Your task to perform on an android device: Open Amazon Image 0: 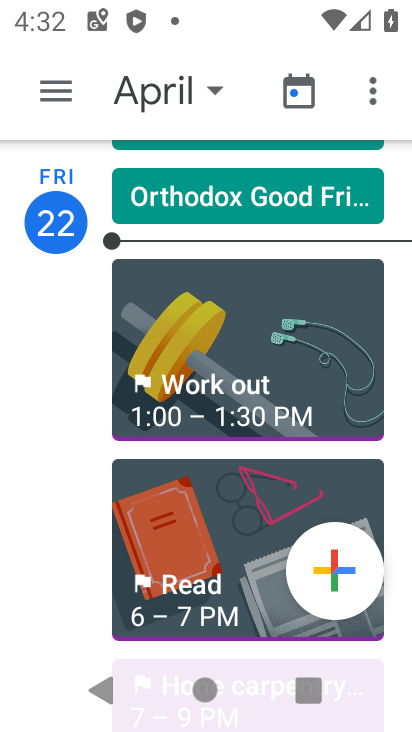
Step 0: press home button
Your task to perform on an android device: Open Amazon Image 1: 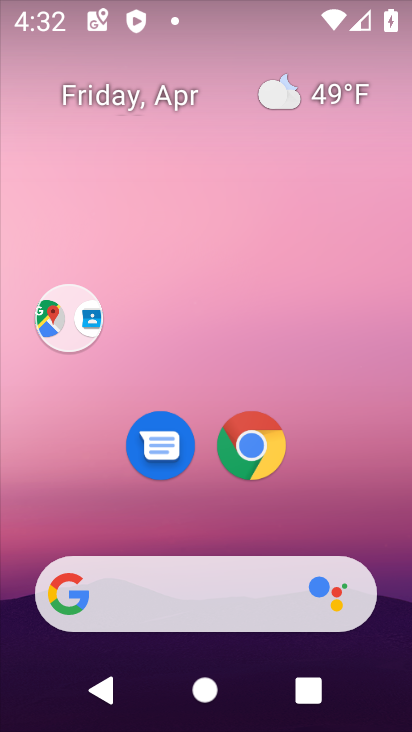
Step 1: drag from (321, 471) to (292, 75)
Your task to perform on an android device: Open Amazon Image 2: 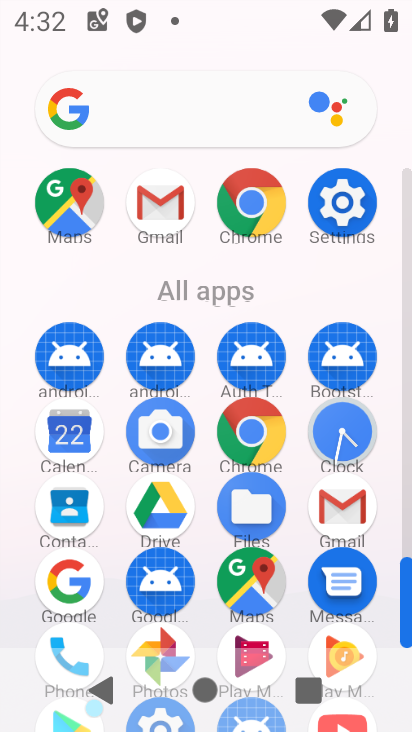
Step 2: click (251, 435)
Your task to perform on an android device: Open Amazon Image 3: 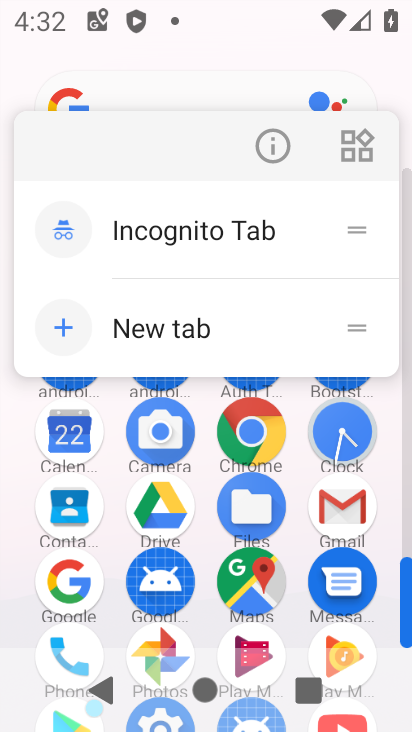
Step 3: click (251, 430)
Your task to perform on an android device: Open Amazon Image 4: 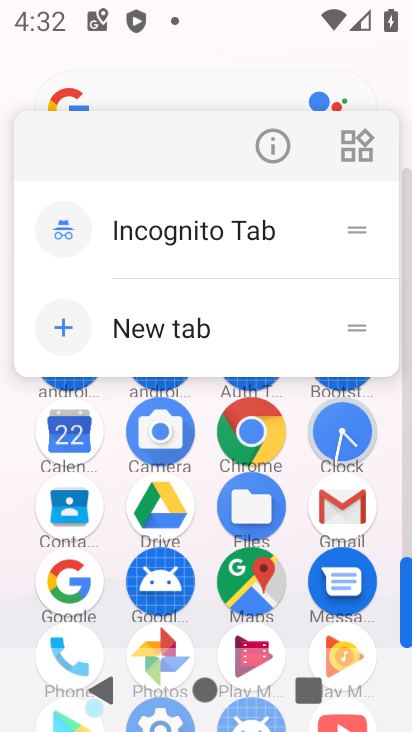
Step 4: click (267, 431)
Your task to perform on an android device: Open Amazon Image 5: 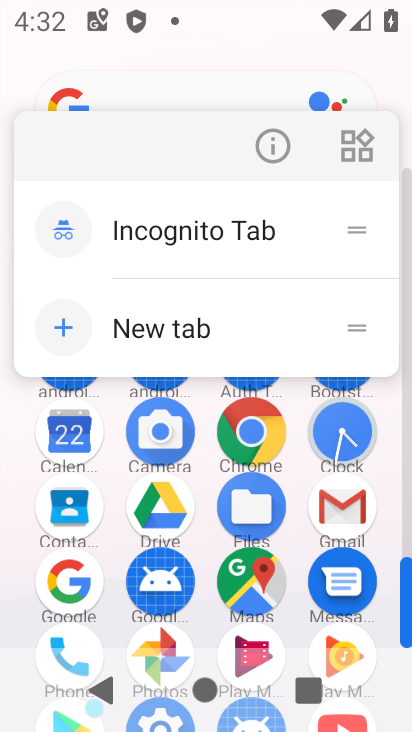
Step 5: click (256, 431)
Your task to perform on an android device: Open Amazon Image 6: 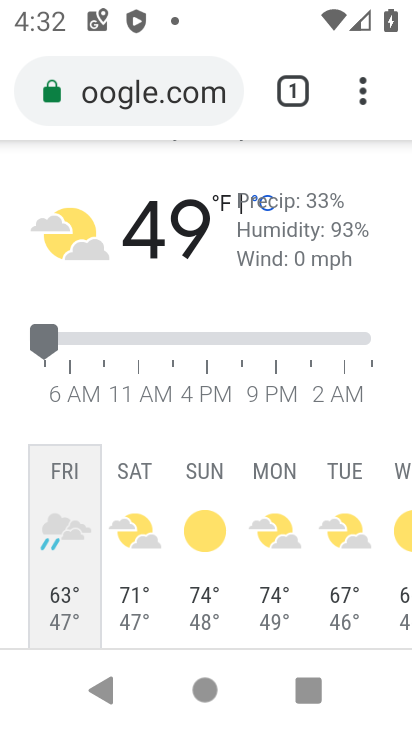
Step 6: click (157, 91)
Your task to perform on an android device: Open Amazon Image 7: 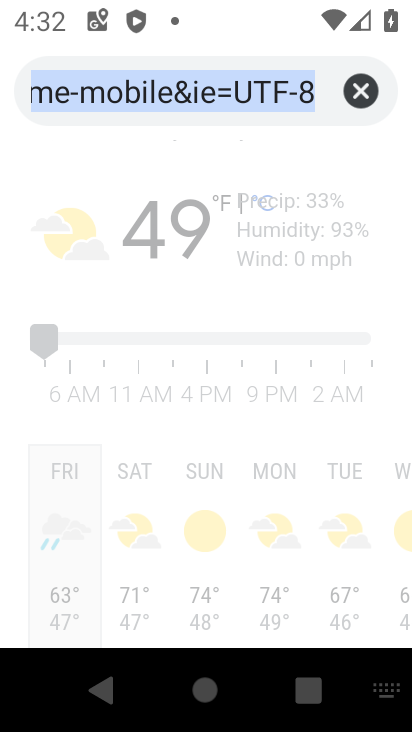
Step 7: type "amazon"
Your task to perform on an android device: Open Amazon Image 8: 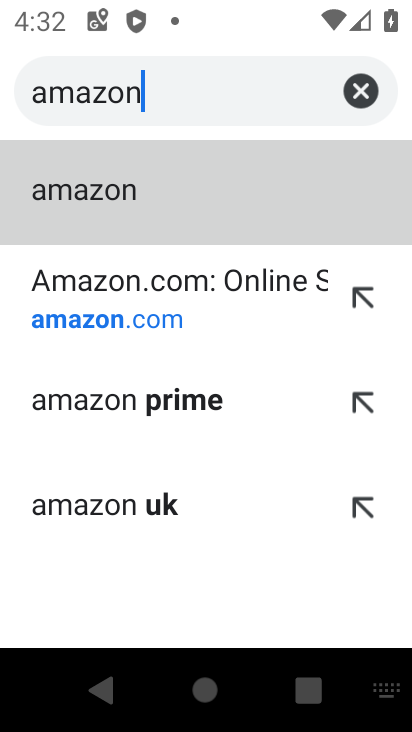
Step 8: click (123, 304)
Your task to perform on an android device: Open Amazon Image 9: 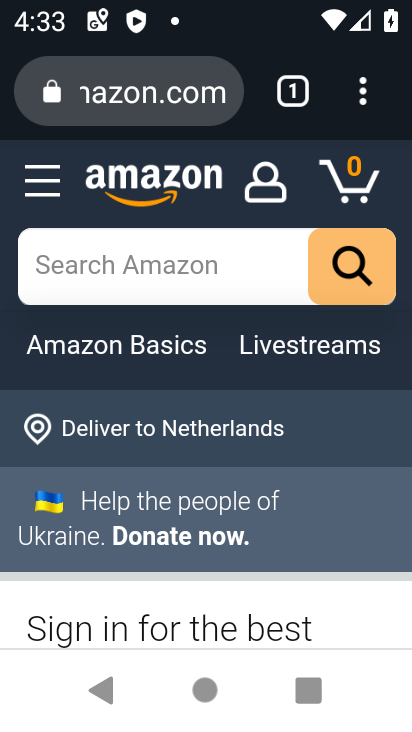
Step 9: task complete